Your task to perform on an android device: Go to sound settings Image 0: 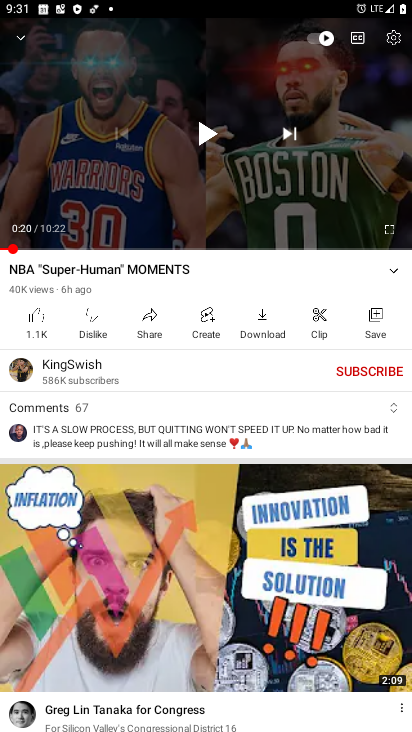
Step 0: press home button
Your task to perform on an android device: Go to sound settings Image 1: 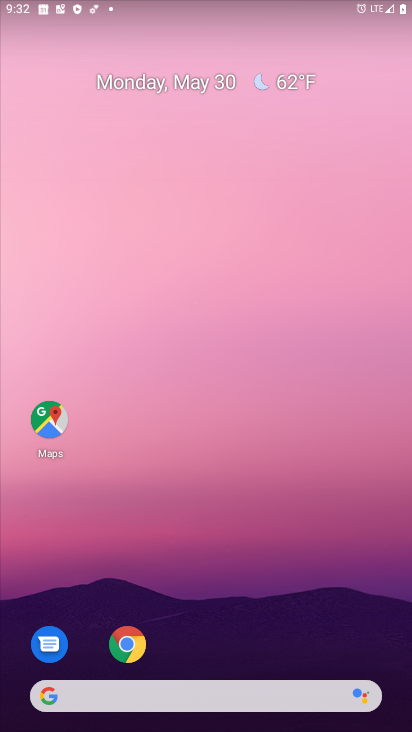
Step 1: drag from (375, 645) to (235, 112)
Your task to perform on an android device: Go to sound settings Image 2: 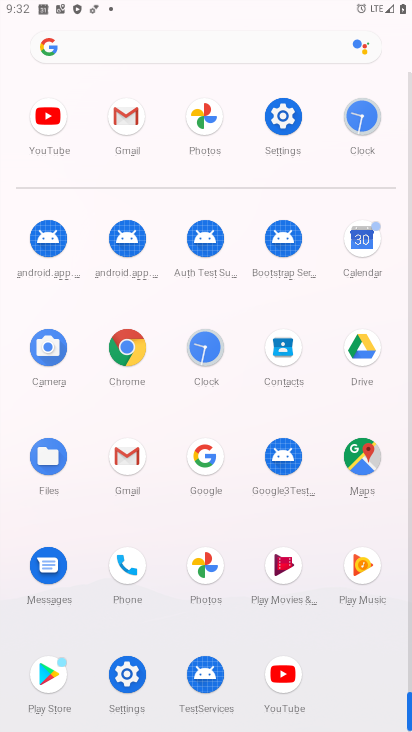
Step 2: click (123, 676)
Your task to perform on an android device: Go to sound settings Image 3: 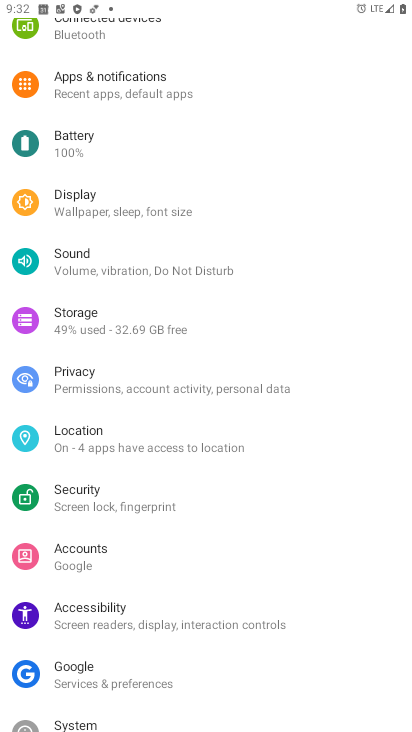
Step 3: click (91, 257)
Your task to perform on an android device: Go to sound settings Image 4: 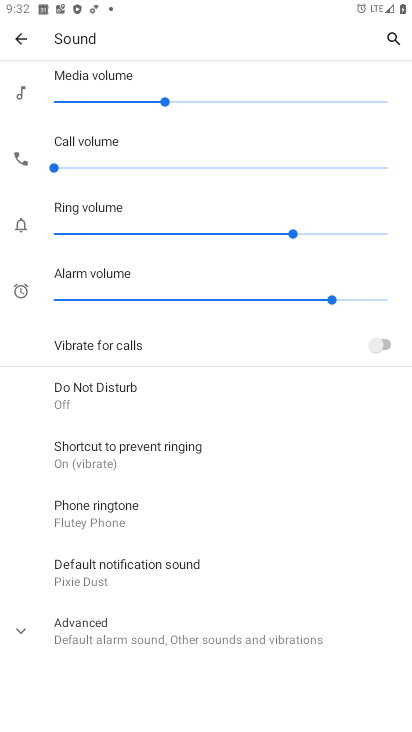
Step 4: click (29, 626)
Your task to perform on an android device: Go to sound settings Image 5: 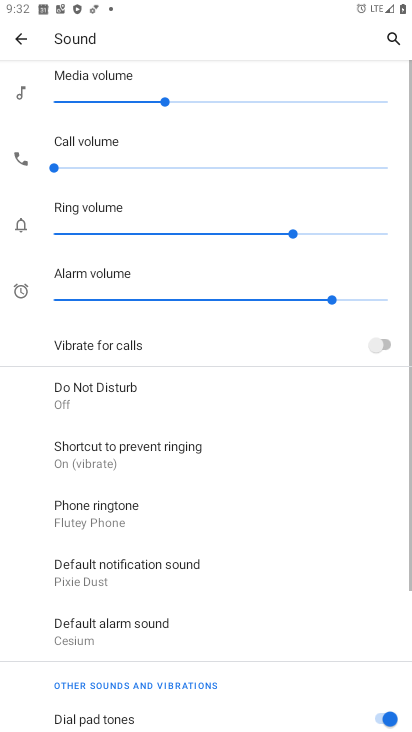
Step 5: task complete